Your task to perform on an android device: What is the recent news? Image 0: 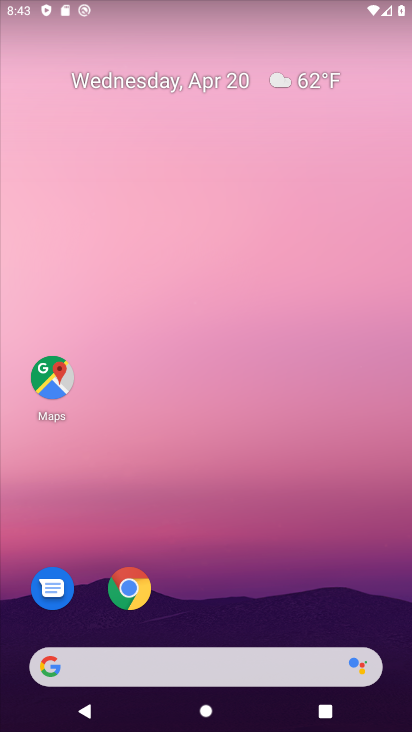
Step 0: drag from (5, 287) to (400, 302)
Your task to perform on an android device: What is the recent news? Image 1: 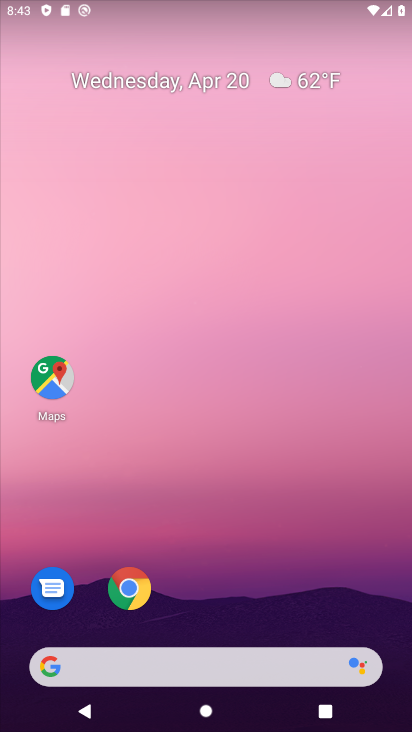
Step 1: task complete